Your task to perform on an android device: turn on data saver in the chrome app Image 0: 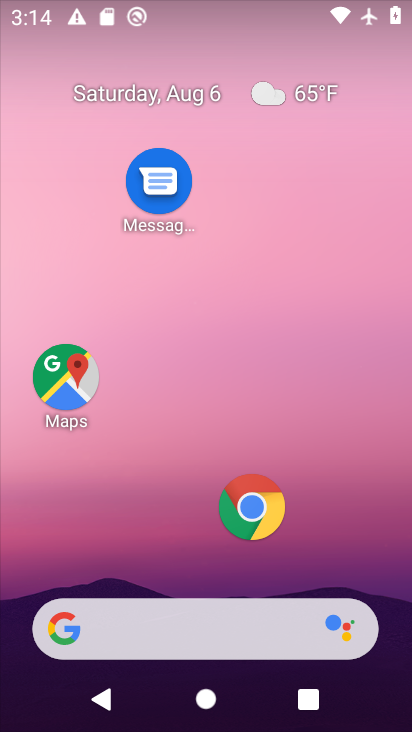
Step 0: drag from (171, 551) to (194, 7)
Your task to perform on an android device: turn on data saver in the chrome app Image 1: 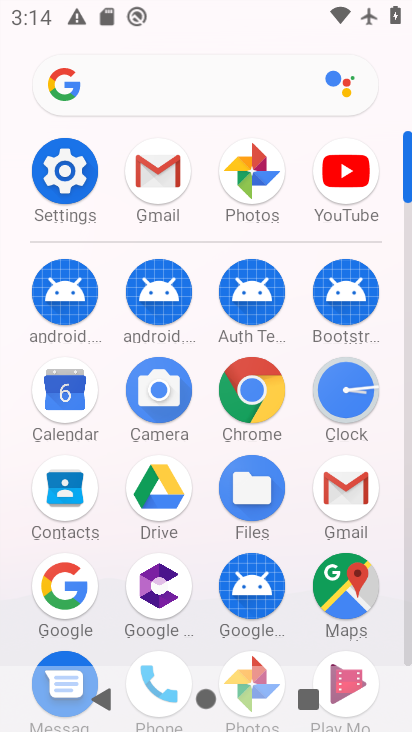
Step 1: click (259, 399)
Your task to perform on an android device: turn on data saver in the chrome app Image 2: 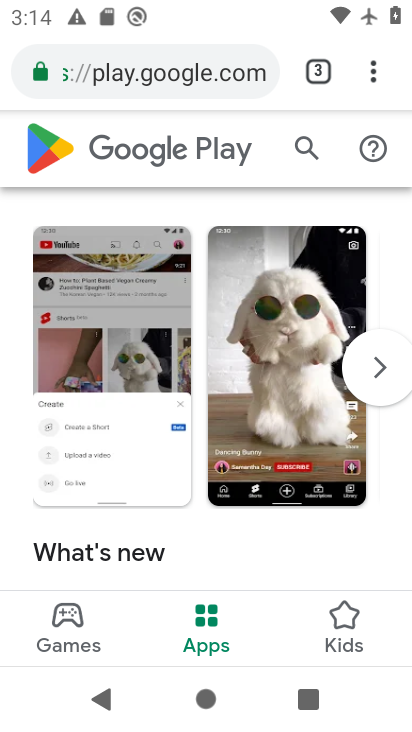
Step 2: click (369, 74)
Your task to perform on an android device: turn on data saver in the chrome app Image 3: 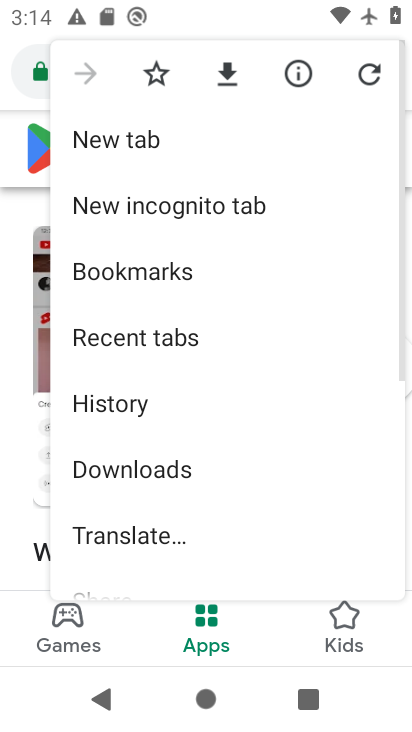
Step 3: drag from (176, 505) to (245, 39)
Your task to perform on an android device: turn on data saver in the chrome app Image 4: 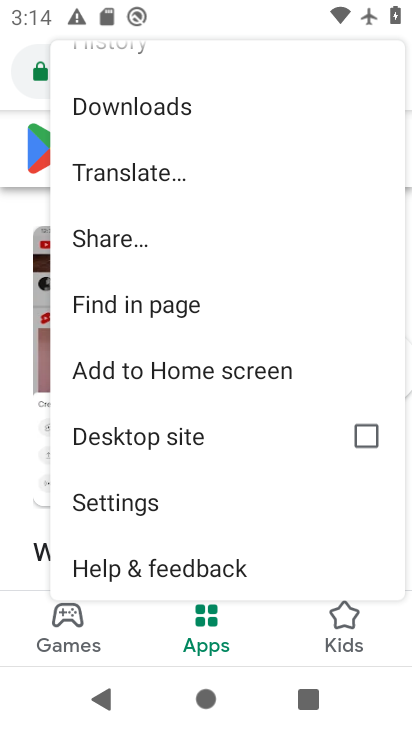
Step 4: click (121, 505)
Your task to perform on an android device: turn on data saver in the chrome app Image 5: 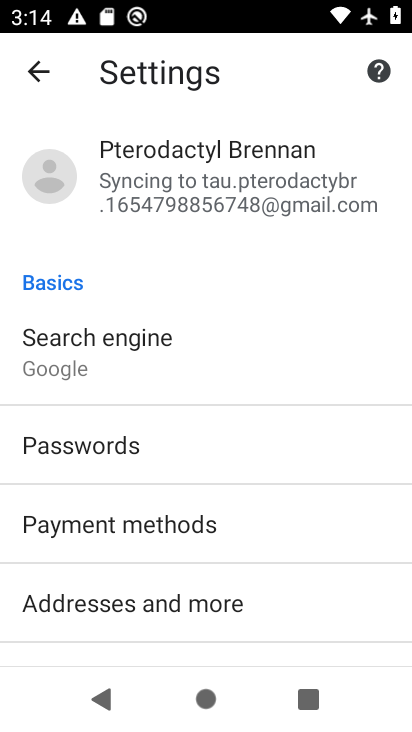
Step 5: drag from (125, 525) to (203, 137)
Your task to perform on an android device: turn on data saver in the chrome app Image 6: 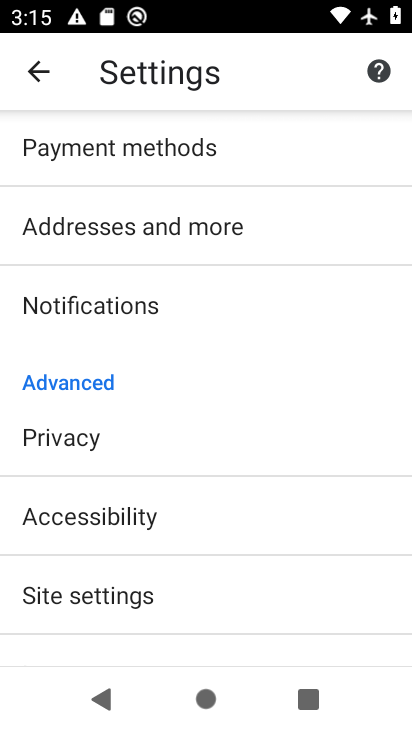
Step 6: drag from (134, 575) to (161, 419)
Your task to perform on an android device: turn on data saver in the chrome app Image 7: 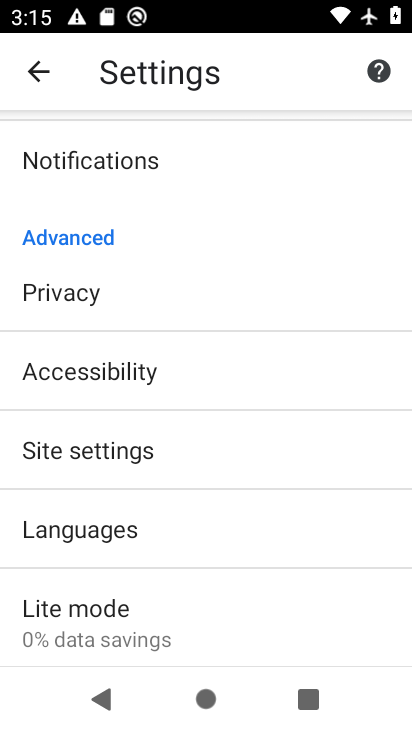
Step 7: click (84, 618)
Your task to perform on an android device: turn on data saver in the chrome app Image 8: 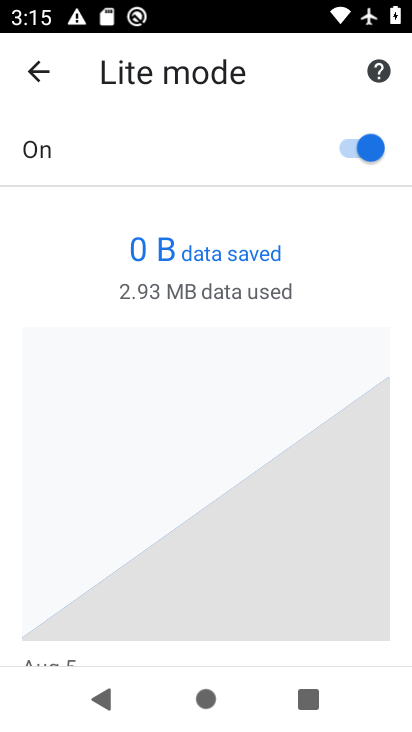
Step 8: task complete